Your task to perform on an android device: change the clock display to analog Image 0: 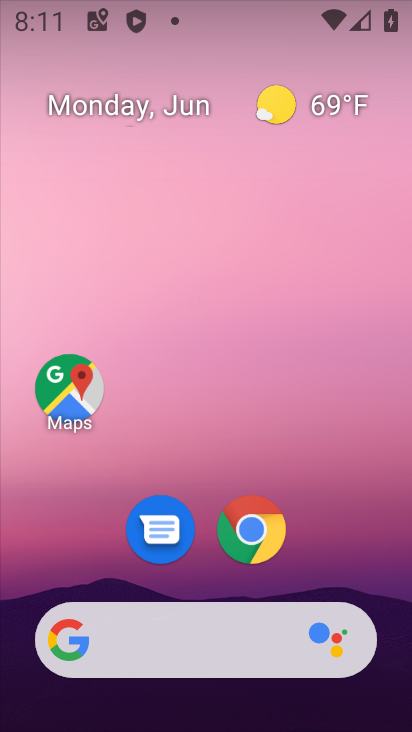
Step 0: drag from (346, 548) to (398, 280)
Your task to perform on an android device: change the clock display to analog Image 1: 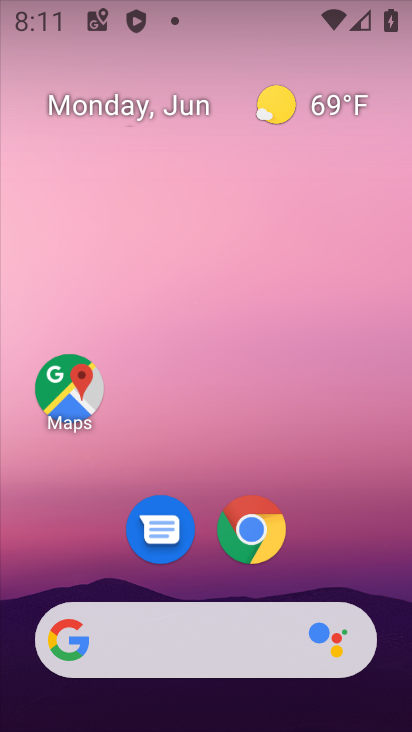
Step 1: drag from (359, 504) to (293, 16)
Your task to perform on an android device: change the clock display to analog Image 2: 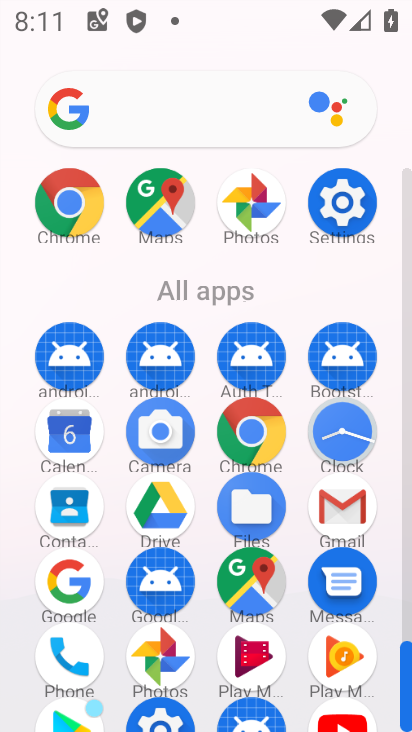
Step 2: click (356, 436)
Your task to perform on an android device: change the clock display to analog Image 3: 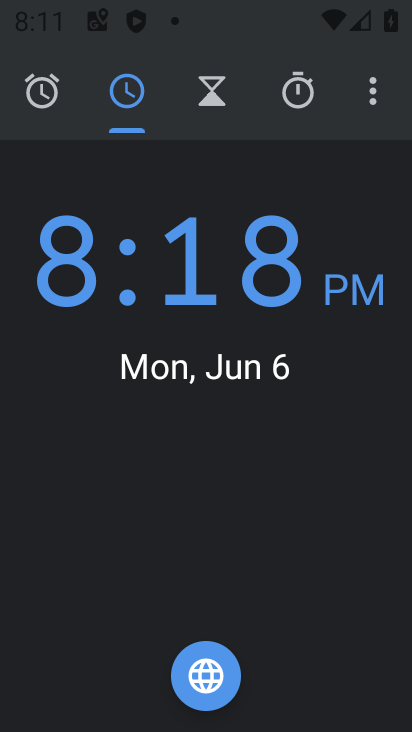
Step 3: click (373, 87)
Your task to perform on an android device: change the clock display to analog Image 4: 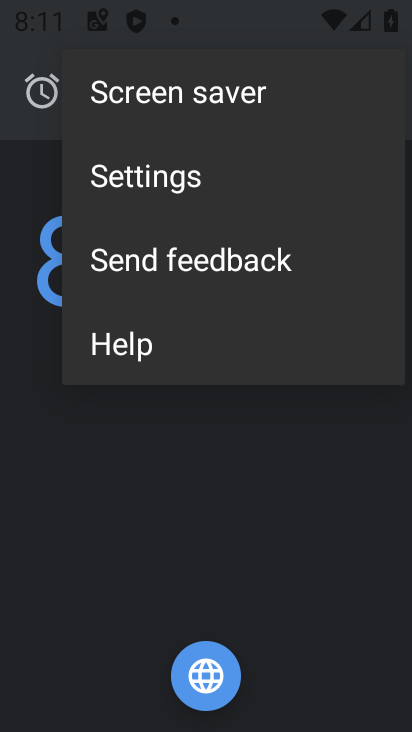
Step 4: click (241, 190)
Your task to perform on an android device: change the clock display to analog Image 5: 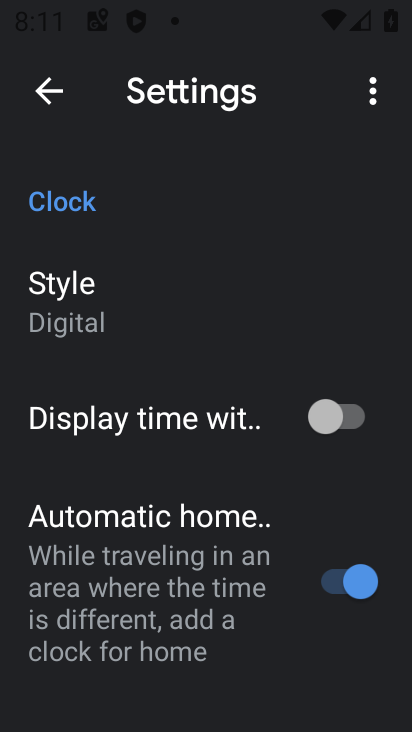
Step 5: click (151, 302)
Your task to perform on an android device: change the clock display to analog Image 6: 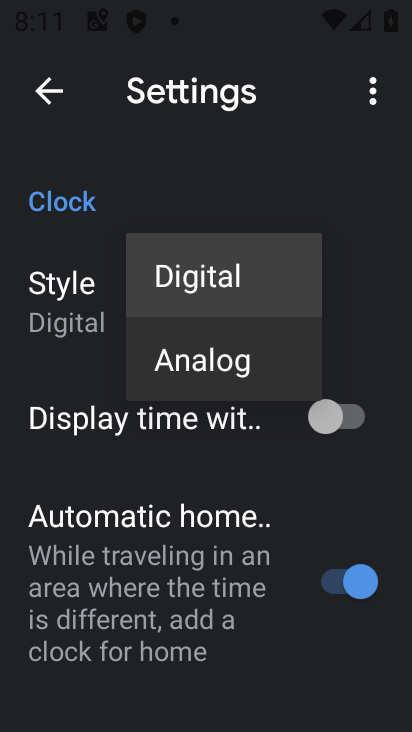
Step 6: click (192, 348)
Your task to perform on an android device: change the clock display to analog Image 7: 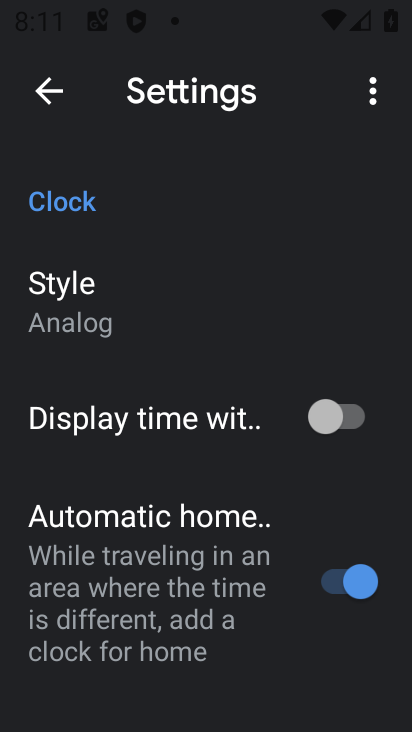
Step 7: task complete